Your task to perform on an android device: change timer sound Image 0: 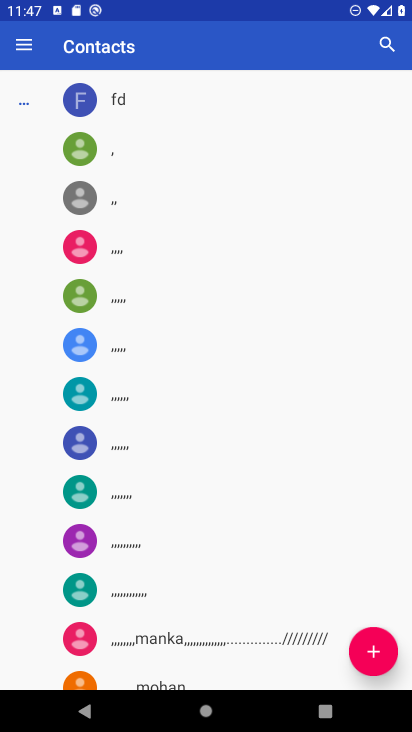
Step 0: press home button
Your task to perform on an android device: change timer sound Image 1: 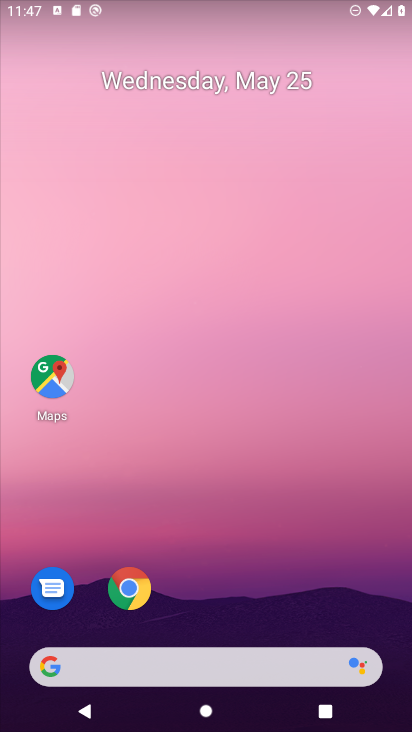
Step 1: drag from (16, 644) to (235, 108)
Your task to perform on an android device: change timer sound Image 2: 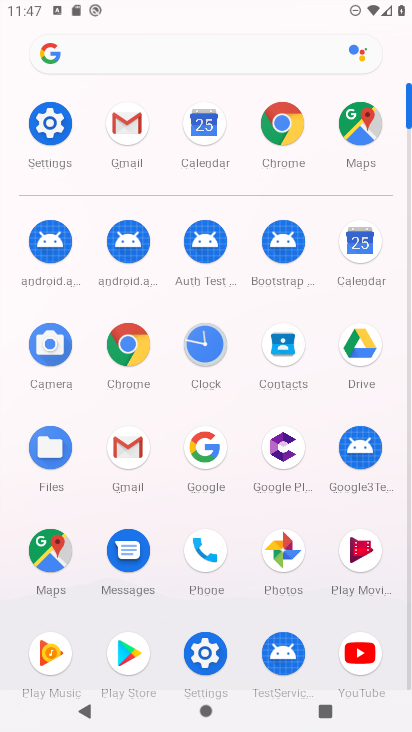
Step 2: click (60, 119)
Your task to perform on an android device: change timer sound Image 3: 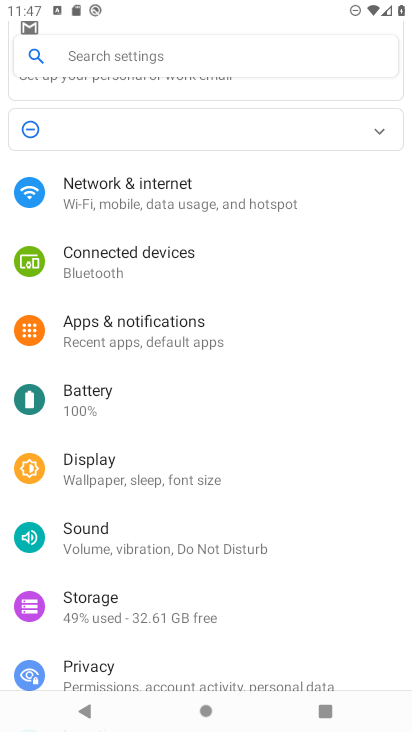
Step 3: press home button
Your task to perform on an android device: change timer sound Image 4: 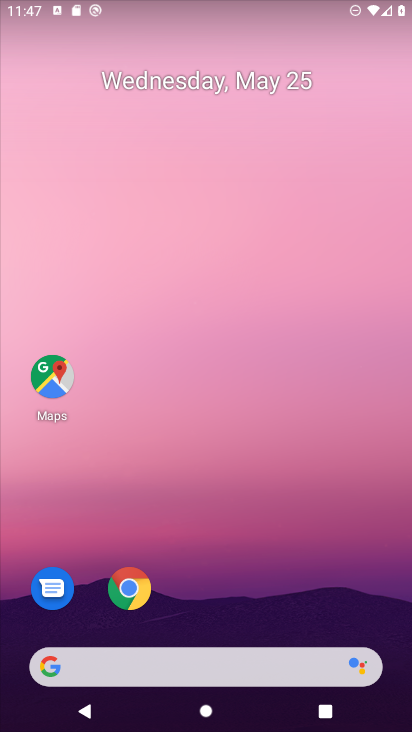
Step 4: drag from (39, 546) to (255, 128)
Your task to perform on an android device: change timer sound Image 5: 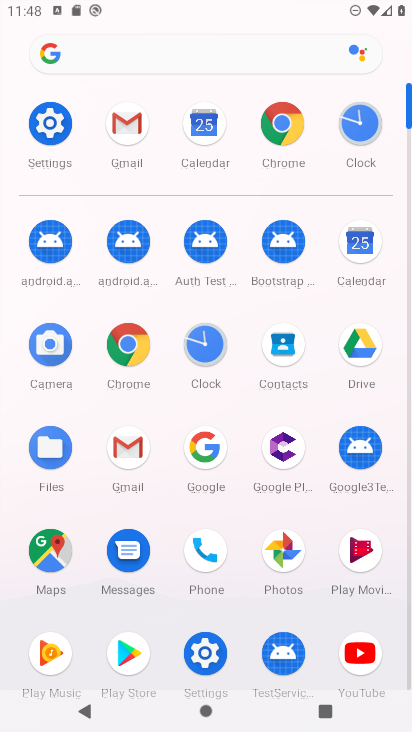
Step 5: click (369, 127)
Your task to perform on an android device: change timer sound Image 6: 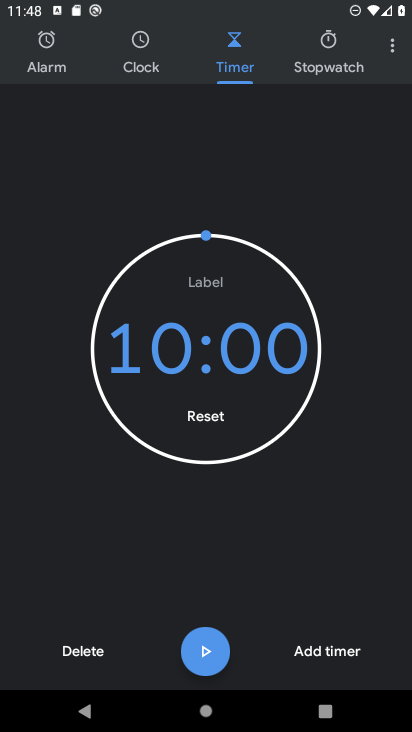
Step 6: click (382, 43)
Your task to perform on an android device: change timer sound Image 7: 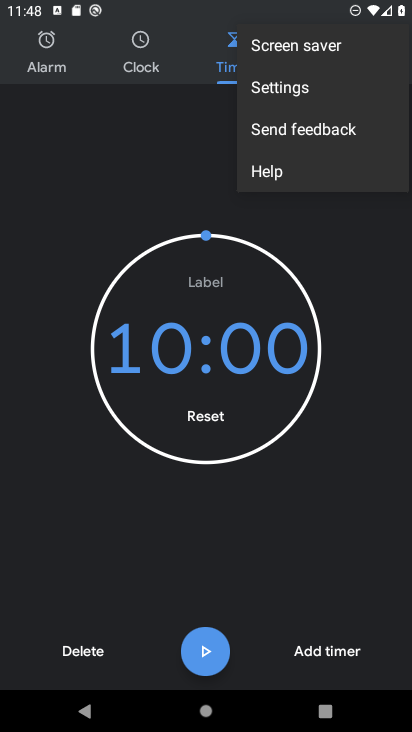
Step 7: click (336, 102)
Your task to perform on an android device: change timer sound Image 8: 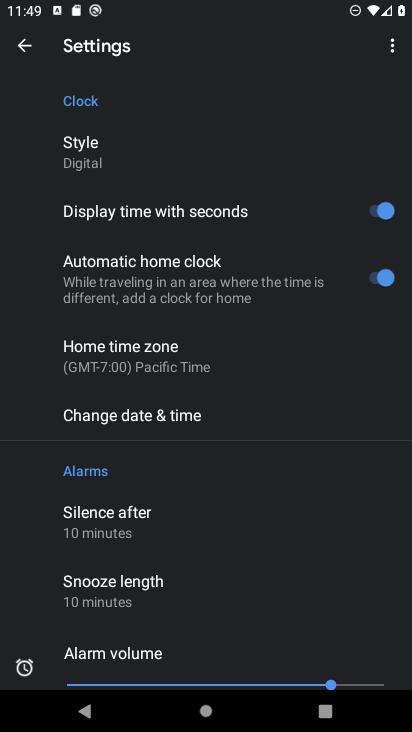
Step 8: drag from (6, 561) to (262, 129)
Your task to perform on an android device: change timer sound Image 9: 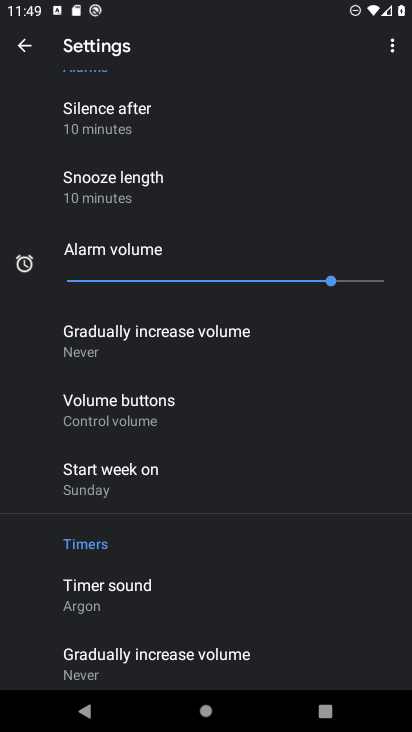
Step 9: click (104, 591)
Your task to perform on an android device: change timer sound Image 10: 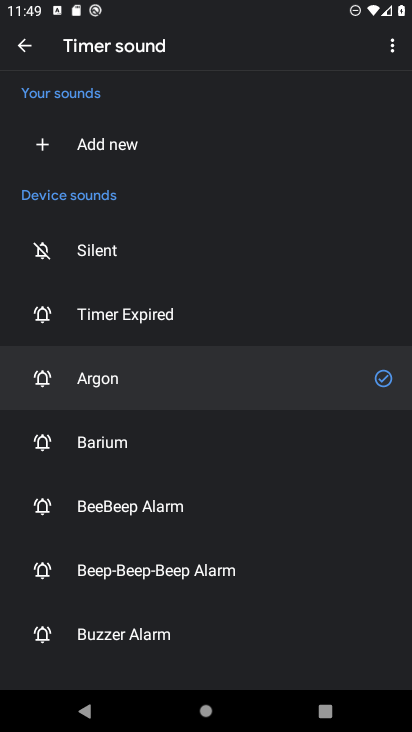
Step 10: click (137, 315)
Your task to perform on an android device: change timer sound Image 11: 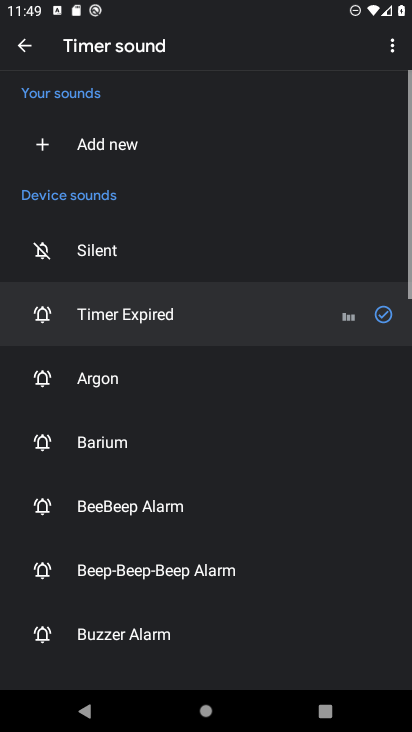
Step 11: task complete